Your task to perform on an android device: Go to settings Image 0: 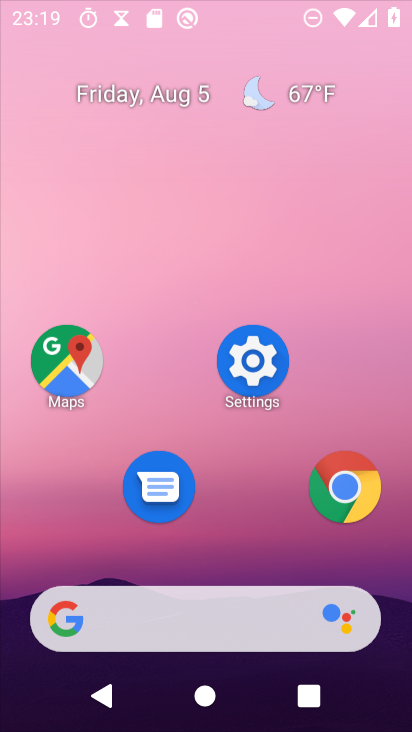
Step 0: press home button
Your task to perform on an android device: Go to settings Image 1: 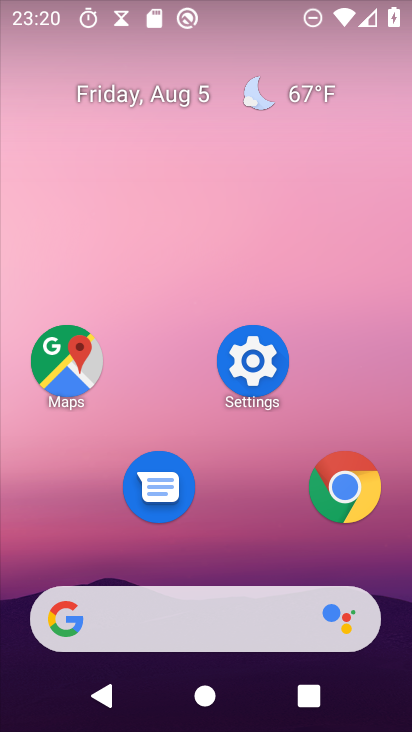
Step 1: click (251, 363)
Your task to perform on an android device: Go to settings Image 2: 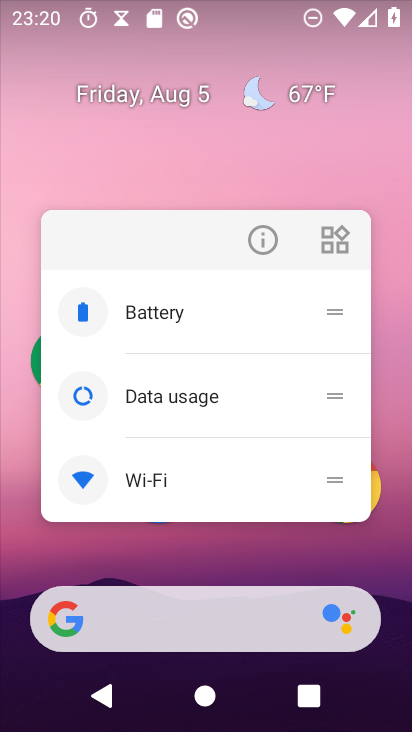
Step 2: click (390, 189)
Your task to perform on an android device: Go to settings Image 3: 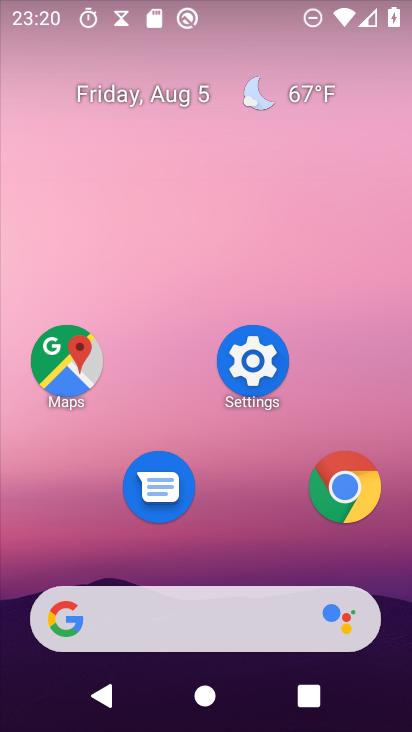
Step 3: click (262, 356)
Your task to perform on an android device: Go to settings Image 4: 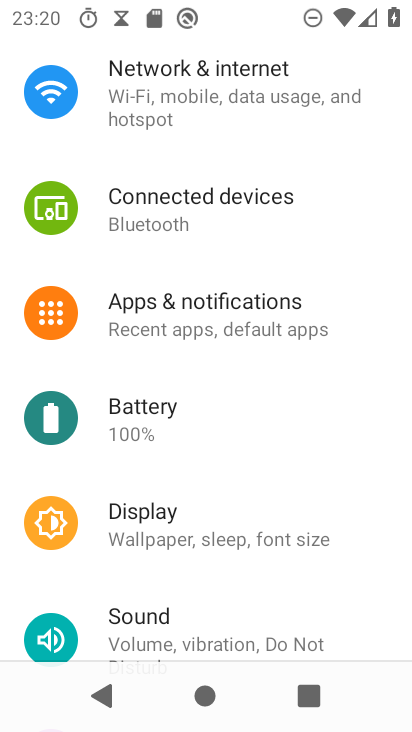
Step 4: task complete